Your task to perform on an android device: Open Youtube and go to "Your channel" Image 0: 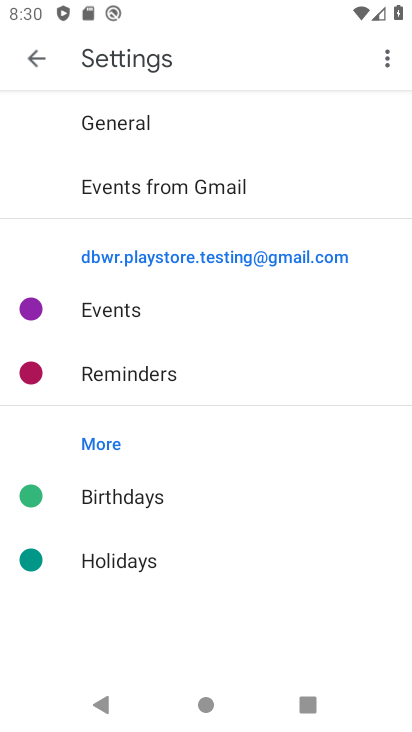
Step 0: press back button
Your task to perform on an android device: Open Youtube and go to "Your channel" Image 1: 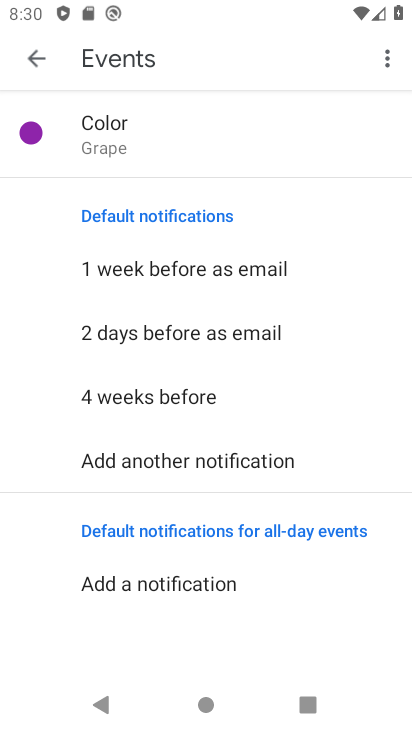
Step 1: press back button
Your task to perform on an android device: Open Youtube and go to "Your channel" Image 2: 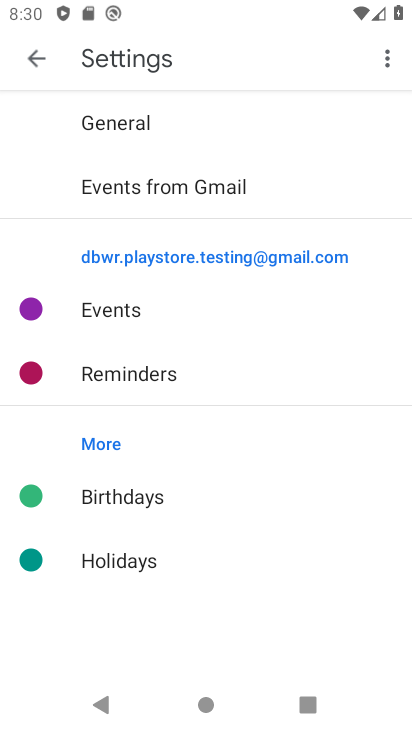
Step 2: press back button
Your task to perform on an android device: Open Youtube and go to "Your channel" Image 3: 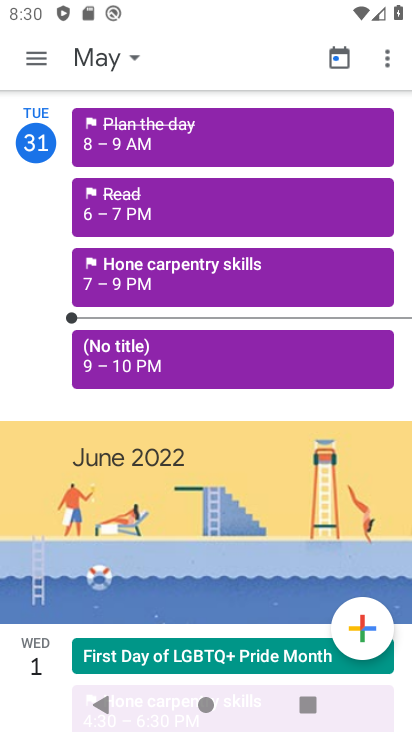
Step 3: press home button
Your task to perform on an android device: Open Youtube and go to "Your channel" Image 4: 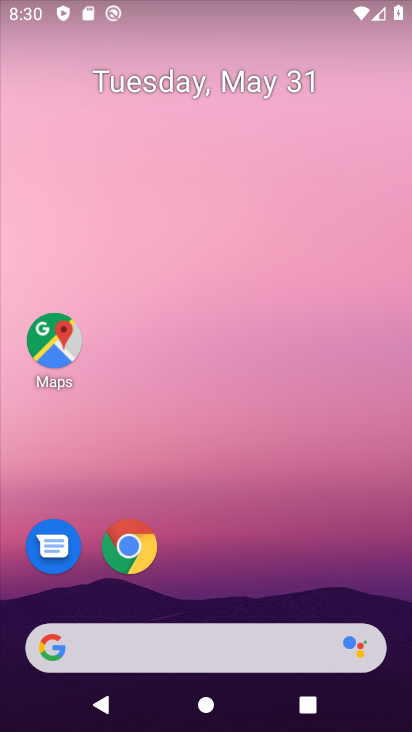
Step 4: drag from (387, 674) to (356, 249)
Your task to perform on an android device: Open Youtube and go to "Your channel" Image 5: 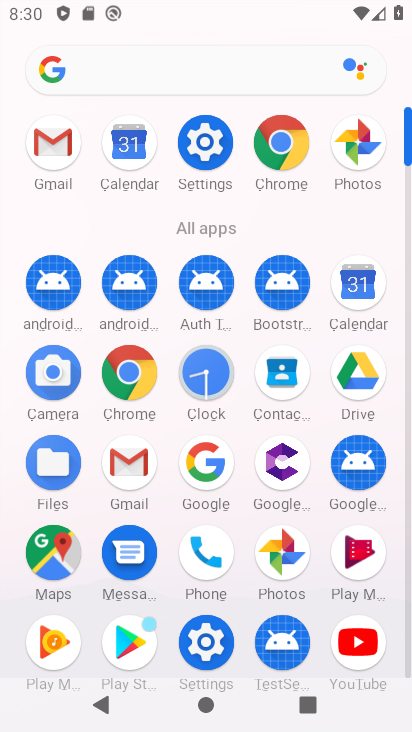
Step 5: click (353, 637)
Your task to perform on an android device: Open Youtube and go to "Your channel" Image 6: 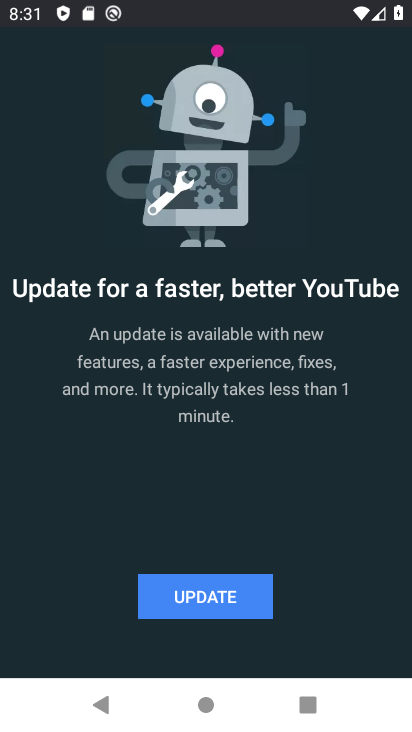
Step 6: click (225, 597)
Your task to perform on an android device: Open Youtube and go to "Your channel" Image 7: 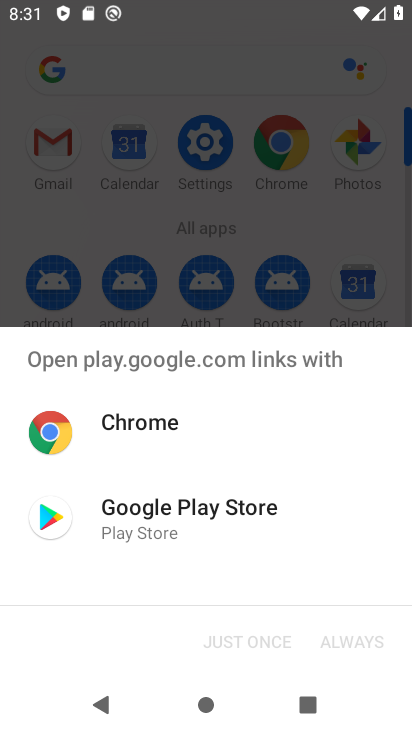
Step 7: click (124, 515)
Your task to perform on an android device: Open Youtube and go to "Your channel" Image 8: 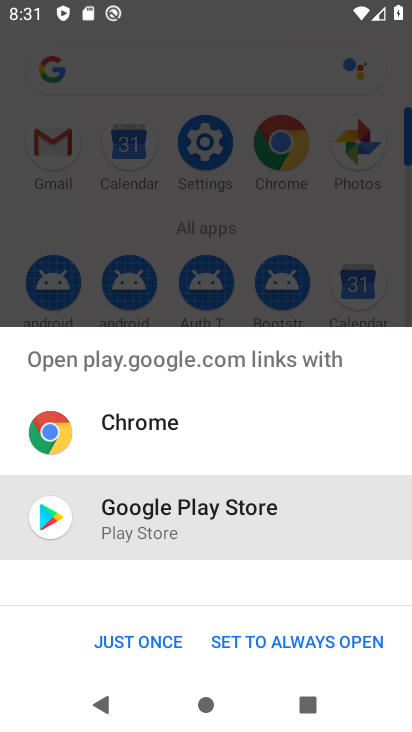
Step 8: click (150, 639)
Your task to perform on an android device: Open Youtube and go to "Your channel" Image 9: 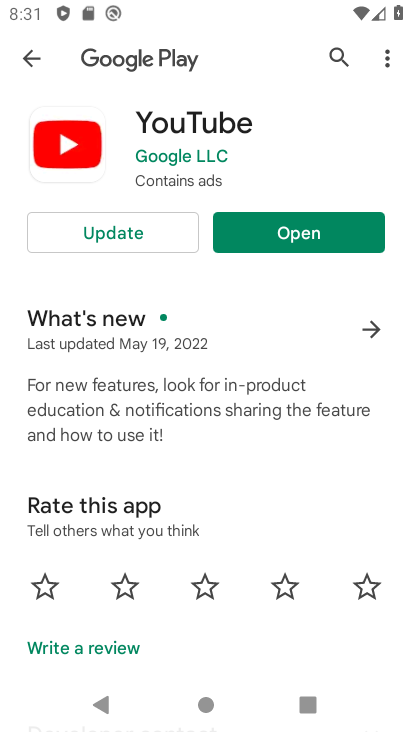
Step 9: click (158, 244)
Your task to perform on an android device: Open Youtube and go to "Your channel" Image 10: 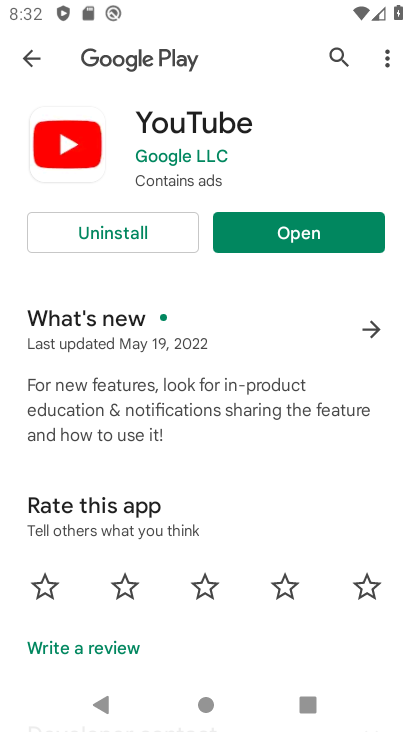
Step 10: click (384, 63)
Your task to perform on an android device: Open Youtube and go to "Your channel" Image 11: 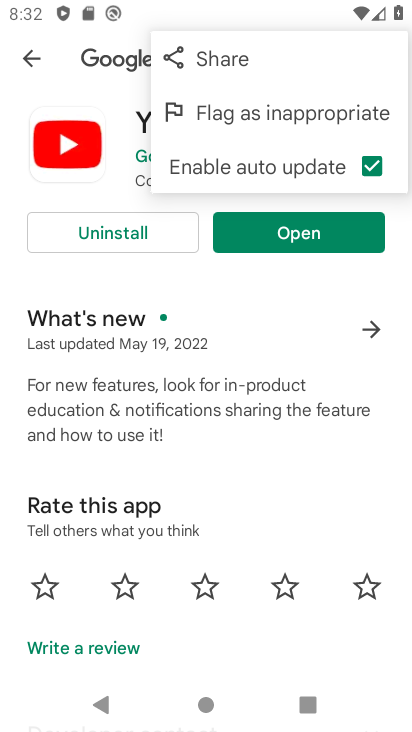
Step 11: click (249, 306)
Your task to perform on an android device: Open Youtube and go to "Your channel" Image 12: 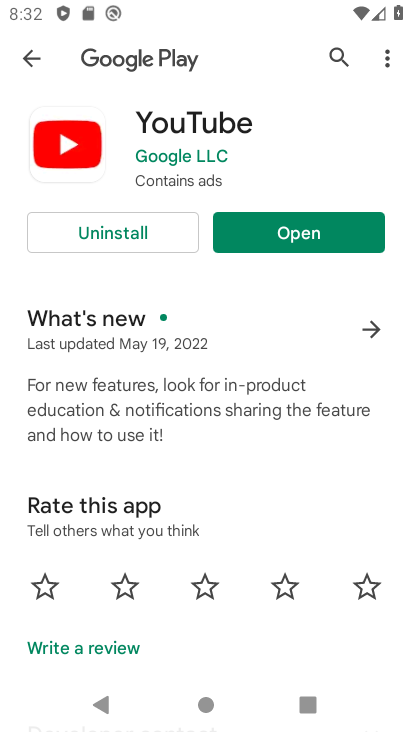
Step 12: click (276, 236)
Your task to perform on an android device: Open Youtube and go to "Your channel" Image 13: 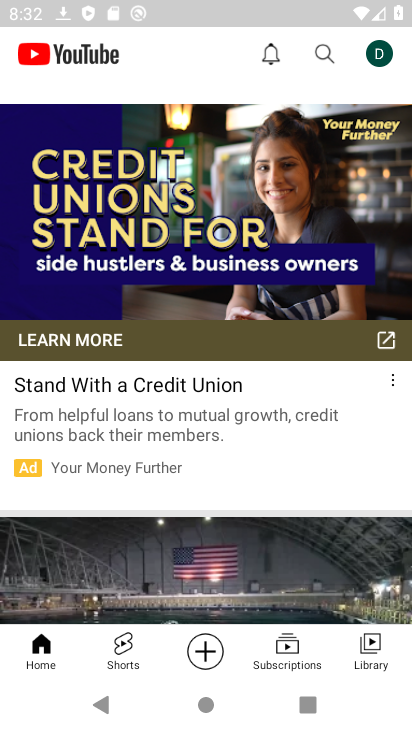
Step 13: drag from (152, 593) to (143, 318)
Your task to perform on an android device: Open Youtube and go to "Your channel" Image 14: 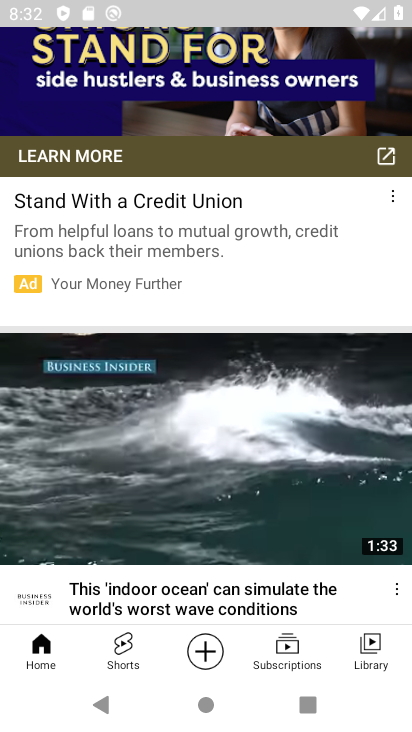
Step 14: drag from (227, 113) to (220, 519)
Your task to perform on an android device: Open Youtube and go to "Your channel" Image 15: 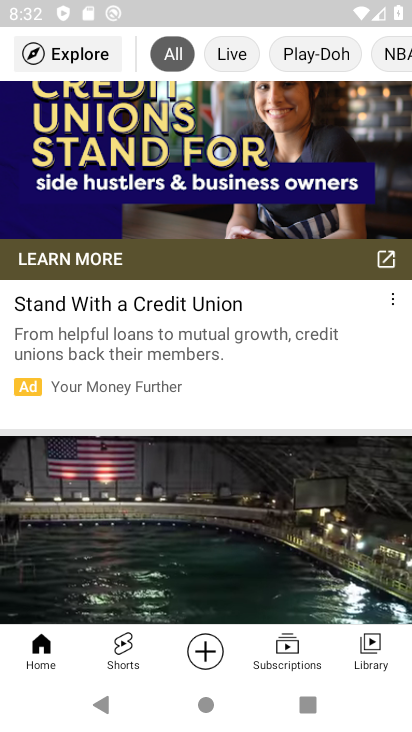
Step 15: drag from (272, 144) to (258, 531)
Your task to perform on an android device: Open Youtube and go to "Your channel" Image 16: 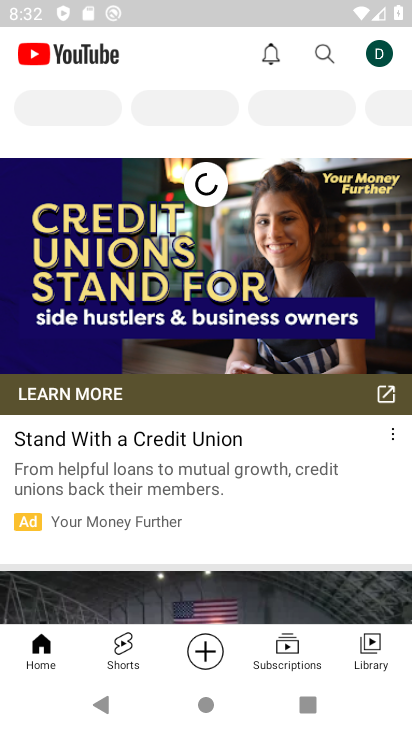
Step 16: click (383, 44)
Your task to perform on an android device: Open Youtube and go to "Your channel" Image 17: 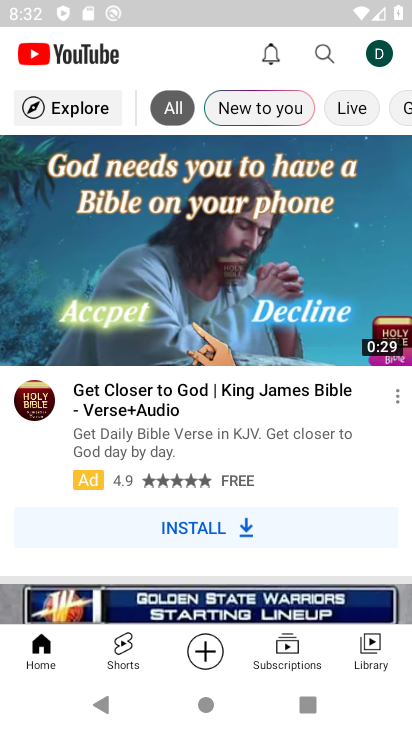
Step 17: click (377, 54)
Your task to perform on an android device: Open Youtube and go to "Your channel" Image 18: 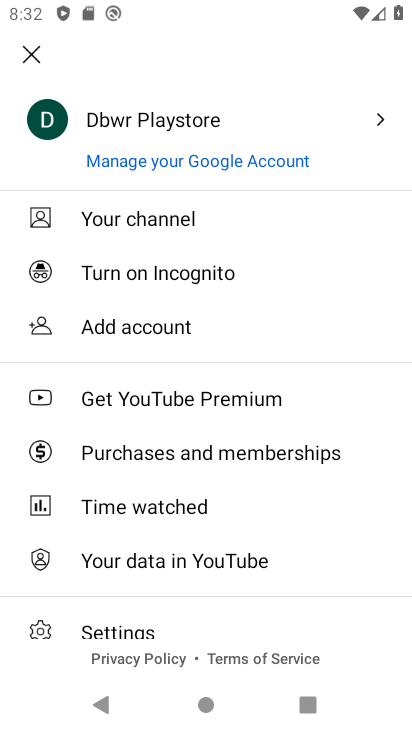
Step 18: click (95, 211)
Your task to perform on an android device: Open Youtube and go to "Your channel" Image 19: 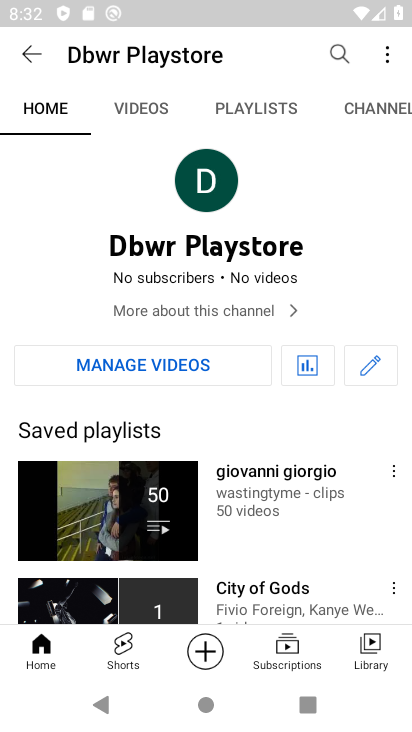
Step 19: task complete